Your task to perform on an android device: Go to Reddit.com Image 0: 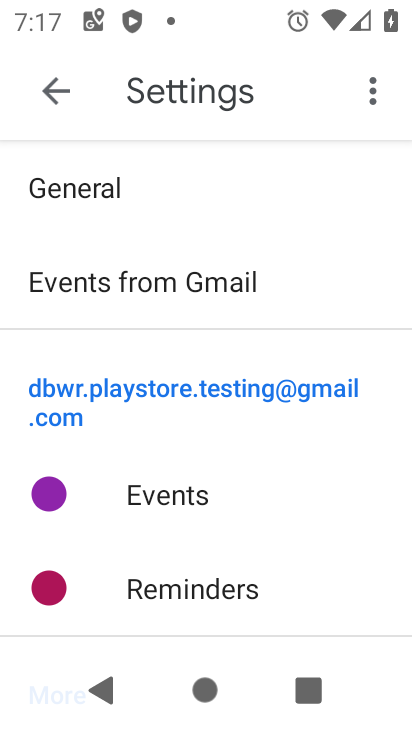
Step 0: press home button
Your task to perform on an android device: Go to Reddit.com Image 1: 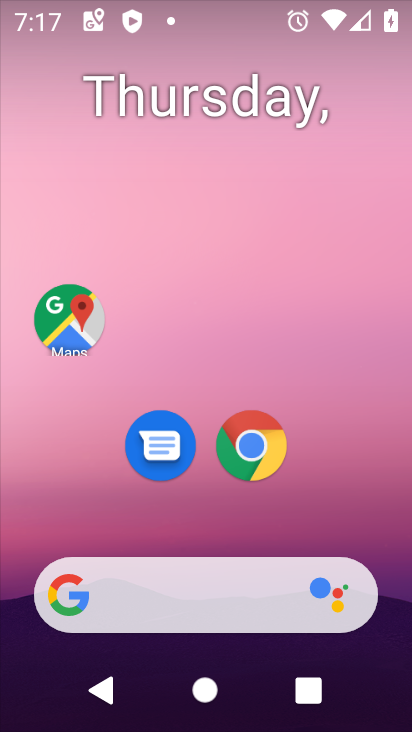
Step 1: click (253, 452)
Your task to perform on an android device: Go to Reddit.com Image 2: 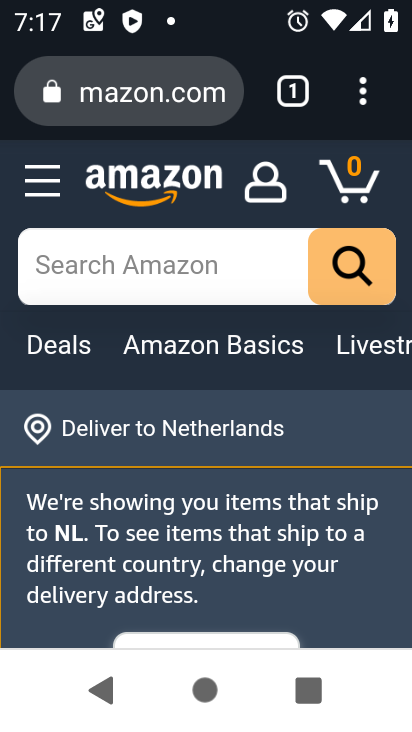
Step 2: click (362, 88)
Your task to perform on an android device: Go to Reddit.com Image 3: 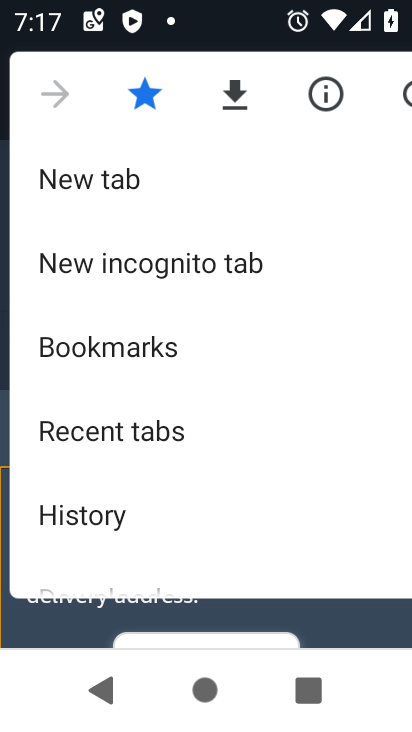
Step 3: click (89, 182)
Your task to perform on an android device: Go to Reddit.com Image 4: 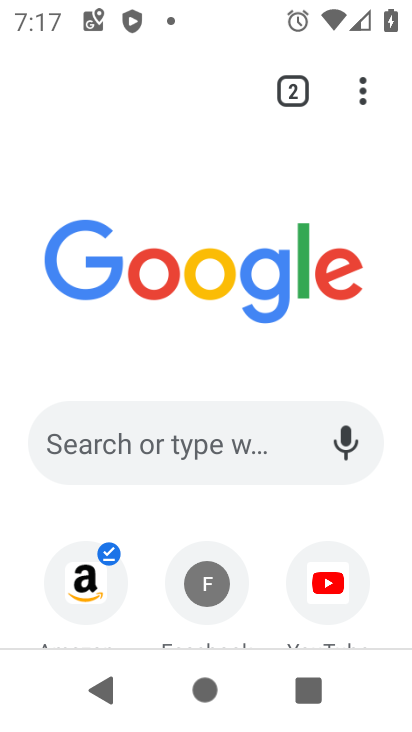
Step 4: click (195, 437)
Your task to perform on an android device: Go to Reddit.com Image 5: 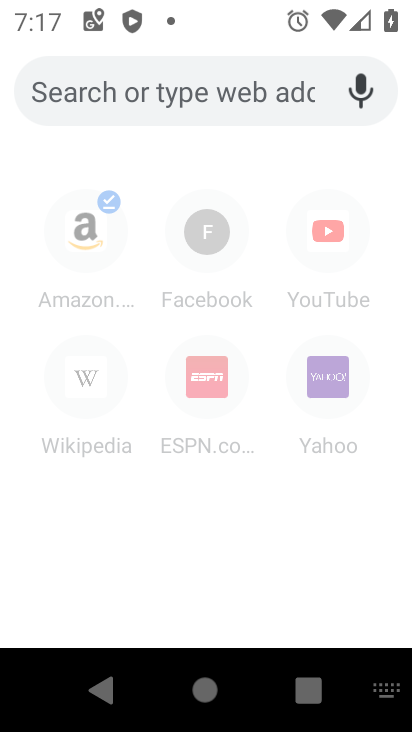
Step 5: type "reddit.com"
Your task to perform on an android device: Go to Reddit.com Image 6: 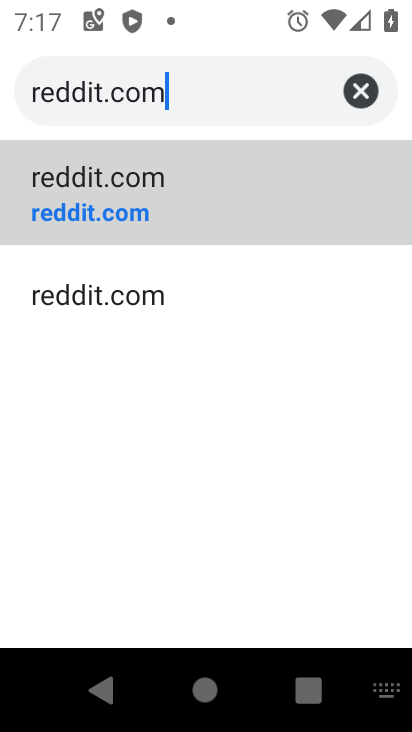
Step 6: click (112, 175)
Your task to perform on an android device: Go to Reddit.com Image 7: 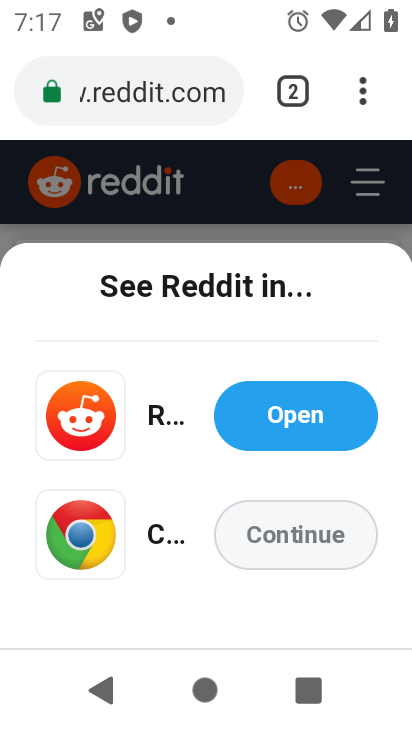
Step 7: click (322, 536)
Your task to perform on an android device: Go to Reddit.com Image 8: 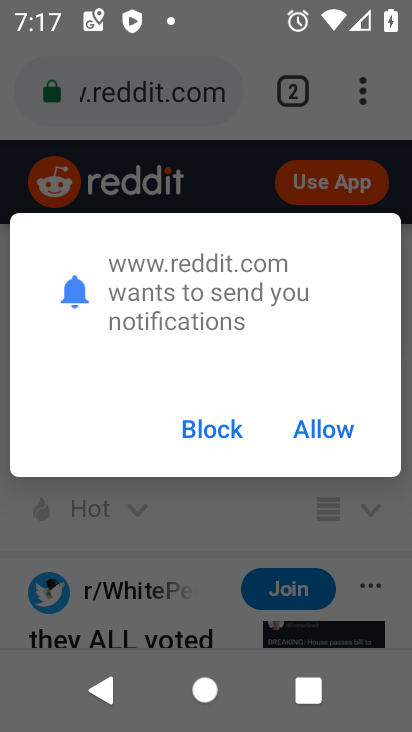
Step 8: click (323, 418)
Your task to perform on an android device: Go to Reddit.com Image 9: 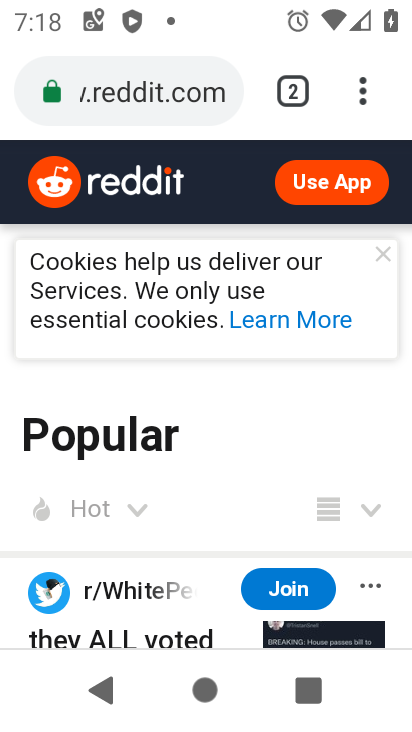
Step 9: task complete